Your task to perform on an android device: set an alarm Image 0: 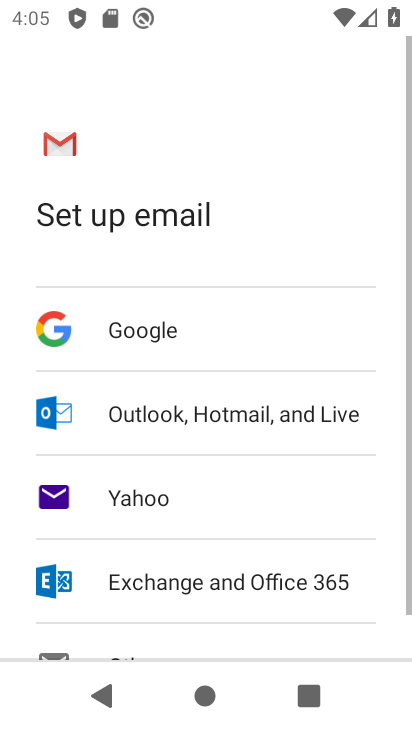
Step 0: drag from (211, 606) to (179, 284)
Your task to perform on an android device: set an alarm Image 1: 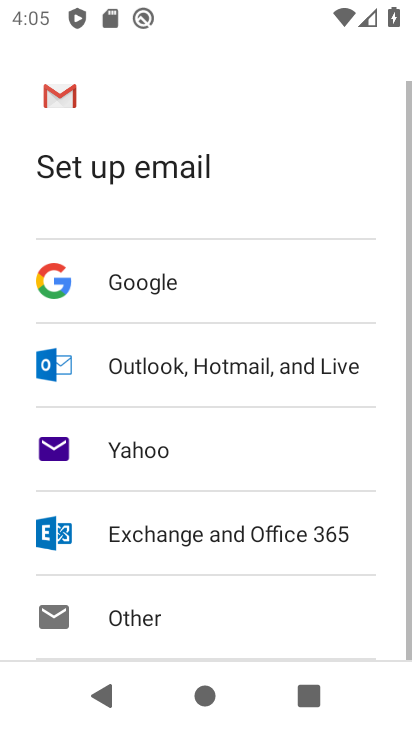
Step 1: press home button
Your task to perform on an android device: set an alarm Image 2: 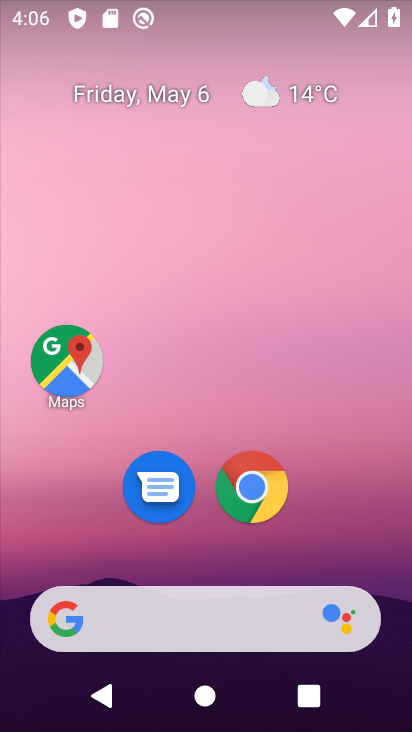
Step 2: drag from (194, 578) to (407, 48)
Your task to perform on an android device: set an alarm Image 3: 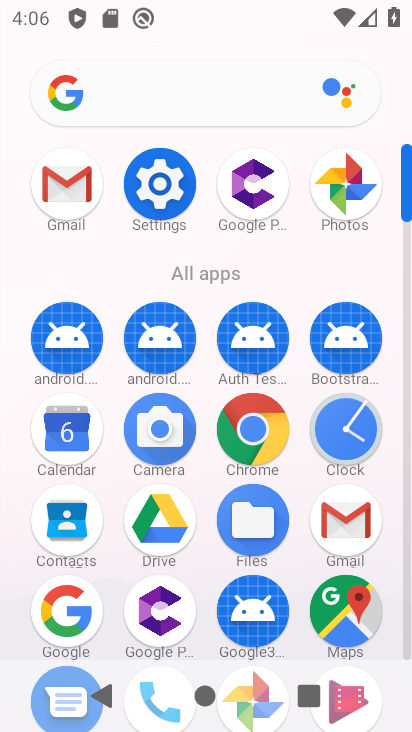
Step 3: click (360, 430)
Your task to perform on an android device: set an alarm Image 4: 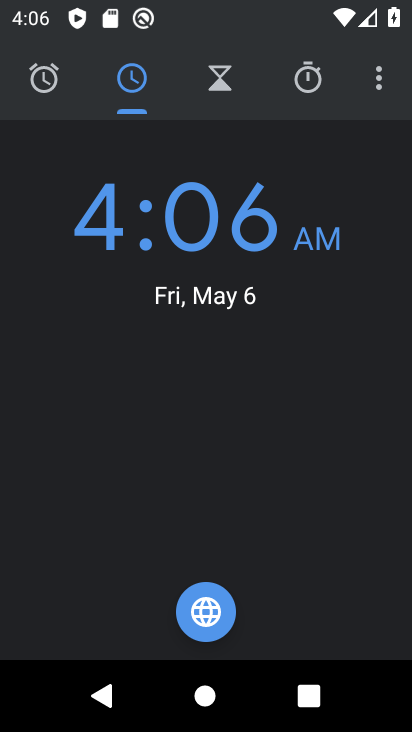
Step 4: click (46, 78)
Your task to perform on an android device: set an alarm Image 5: 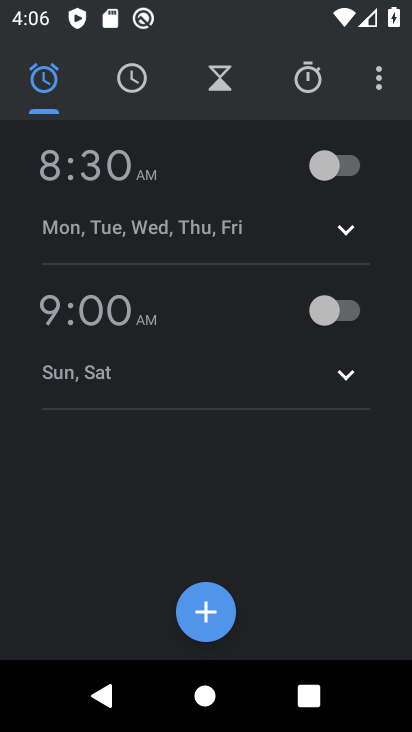
Step 5: click (200, 608)
Your task to perform on an android device: set an alarm Image 6: 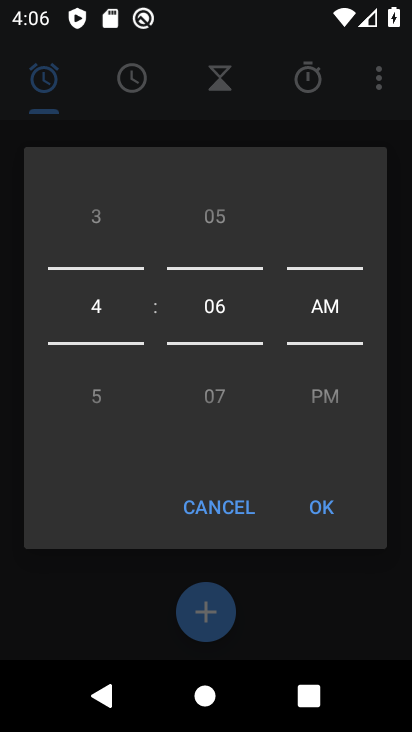
Step 6: click (309, 512)
Your task to perform on an android device: set an alarm Image 7: 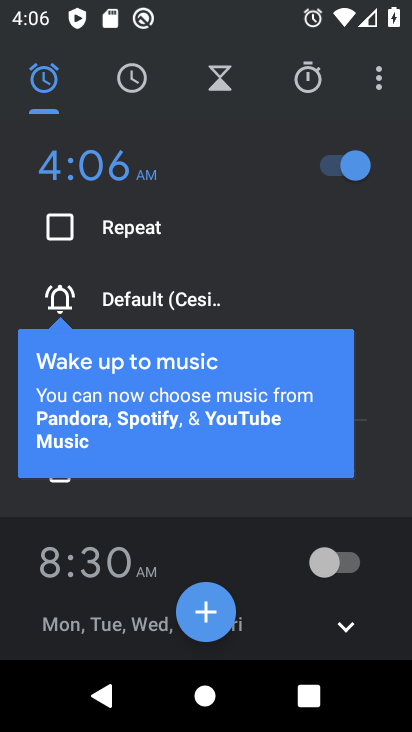
Step 7: task complete